Your task to perform on an android device: Show me recent news Image 0: 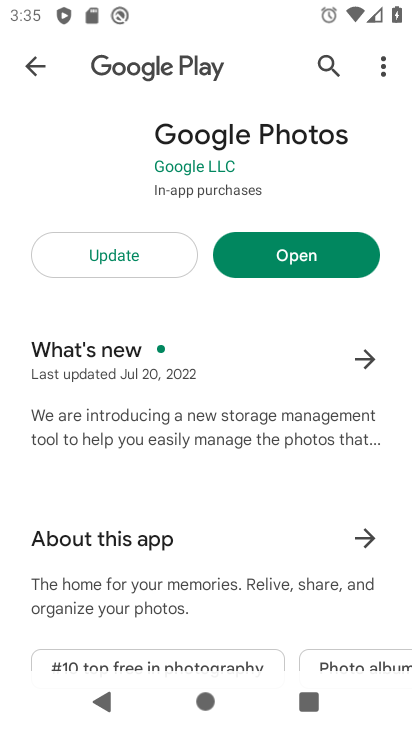
Step 0: drag from (359, 520) to (326, 266)
Your task to perform on an android device: Show me recent news Image 1: 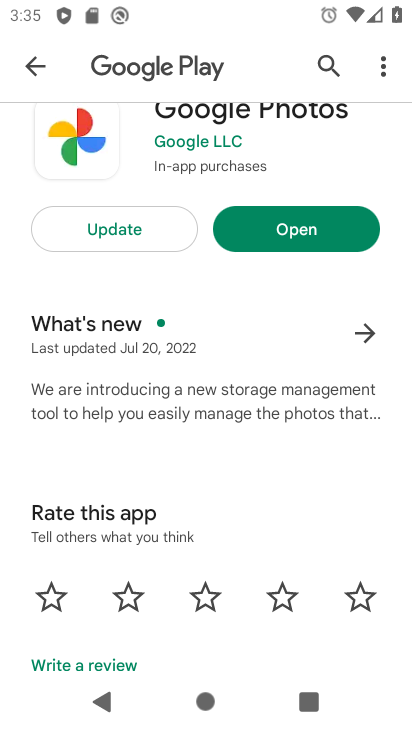
Step 1: click (288, 237)
Your task to perform on an android device: Show me recent news Image 2: 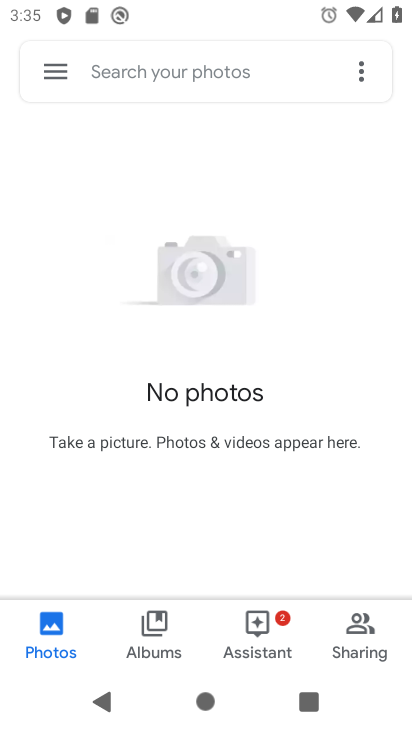
Step 2: task complete